Your task to perform on an android device: turn off notifications in google photos Image 0: 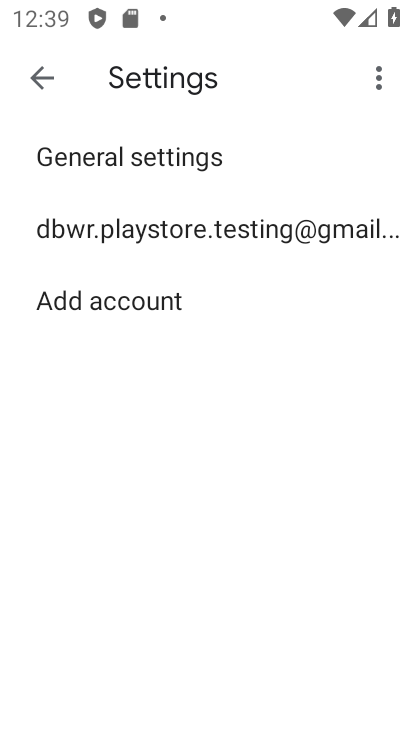
Step 0: press home button
Your task to perform on an android device: turn off notifications in google photos Image 1: 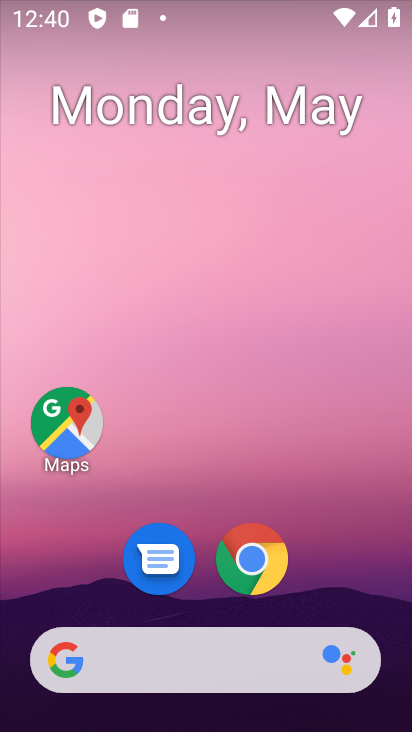
Step 1: drag from (258, 689) to (368, 167)
Your task to perform on an android device: turn off notifications in google photos Image 2: 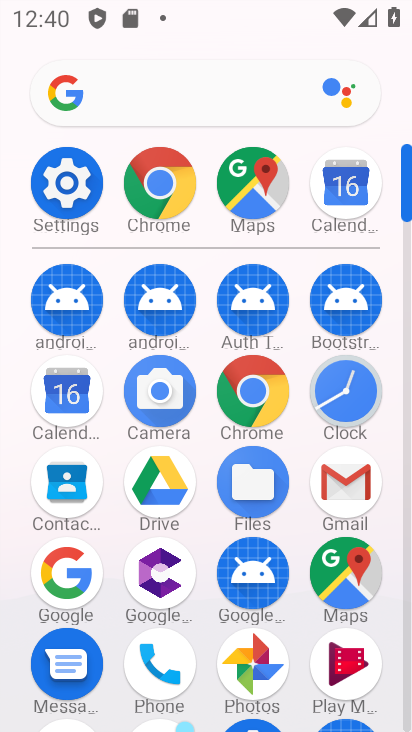
Step 2: click (277, 647)
Your task to perform on an android device: turn off notifications in google photos Image 3: 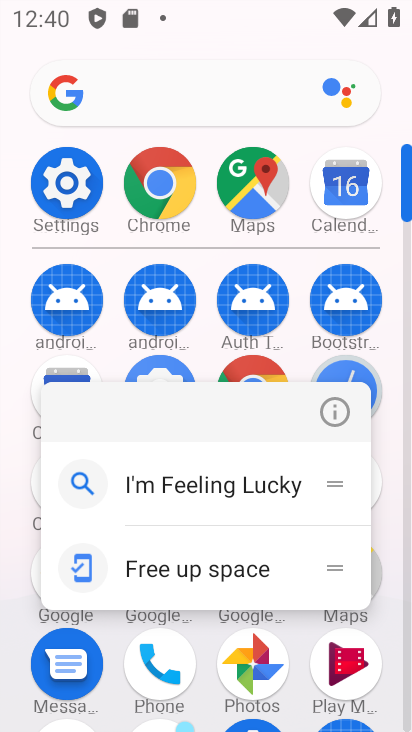
Step 3: click (330, 410)
Your task to perform on an android device: turn off notifications in google photos Image 4: 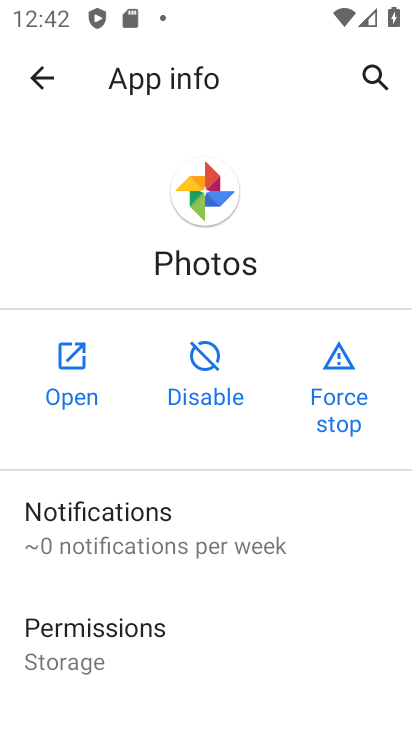
Step 4: click (202, 527)
Your task to perform on an android device: turn off notifications in google photos Image 5: 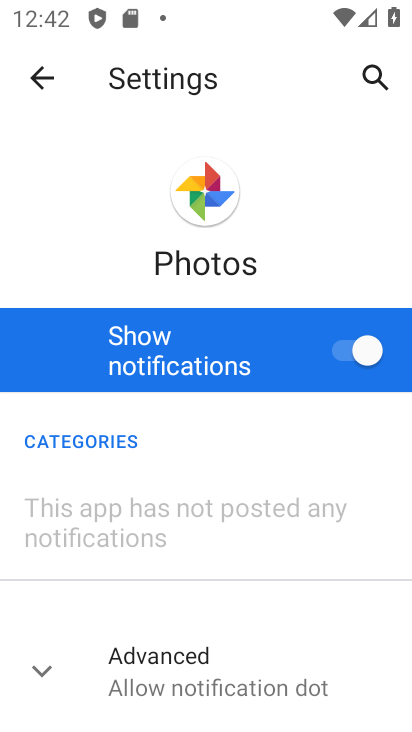
Step 5: click (365, 354)
Your task to perform on an android device: turn off notifications in google photos Image 6: 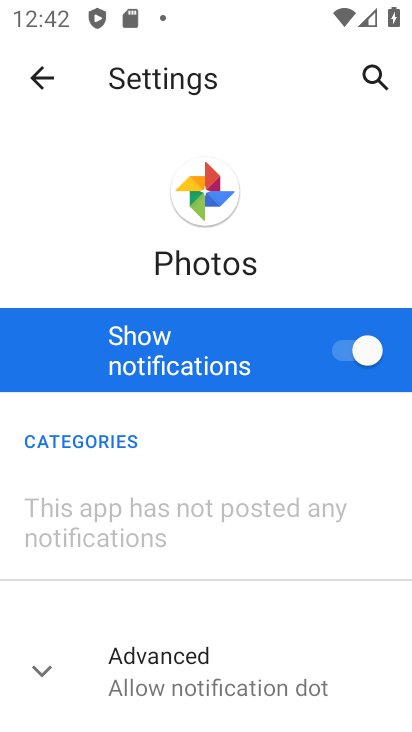
Step 6: task complete